Your task to perform on an android device: open a new tab in the chrome app Image 0: 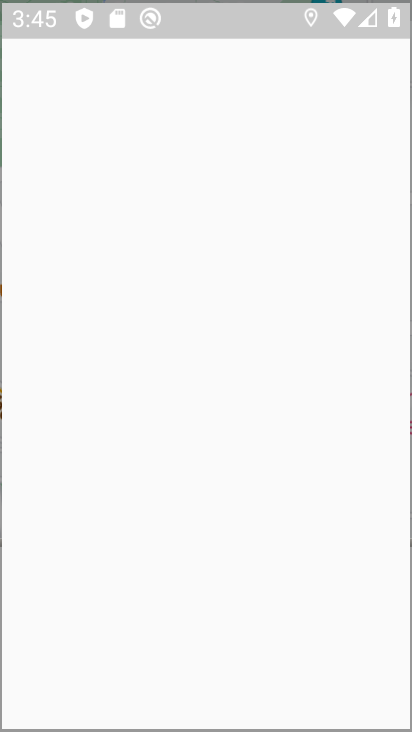
Step 0: press home button
Your task to perform on an android device: open a new tab in the chrome app Image 1: 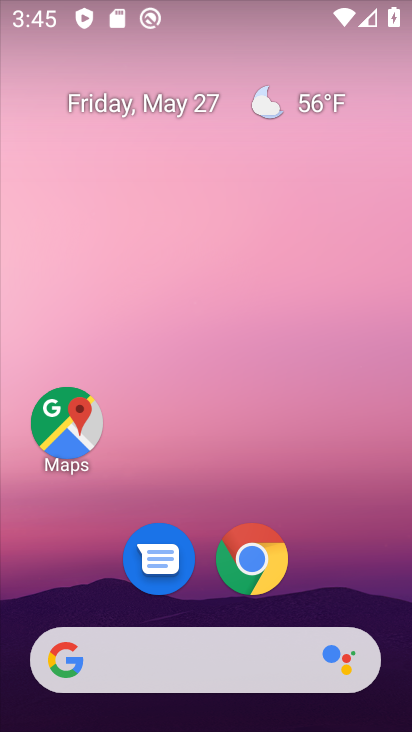
Step 1: click (262, 575)
Your task to perform on an android device: open a new tab in the chrome app Image 2: 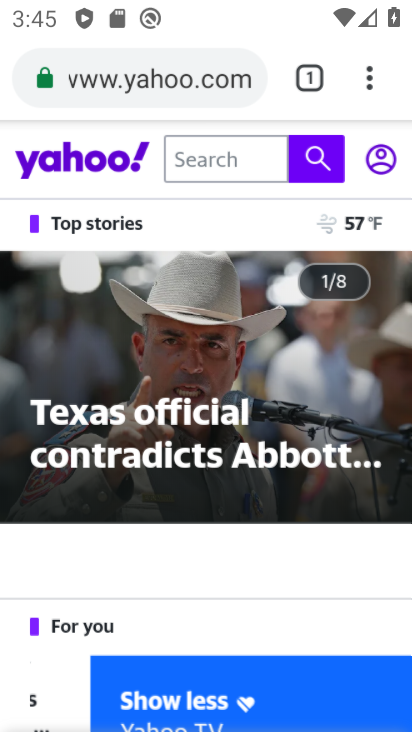
Step 2: task complete